Your task to perform on an android device: turn on showing notifications on the lock screen Image 0: 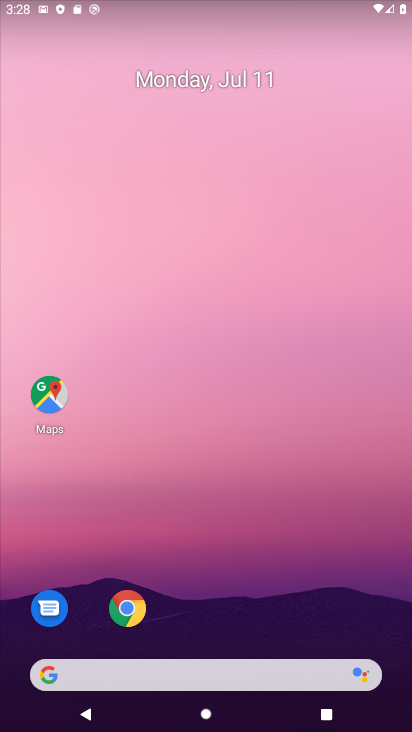
Step 0: drag from (223, 670) to (196, 55)
Your task to perform on an android device: turn on showing notifications on the lock screen Image 1: 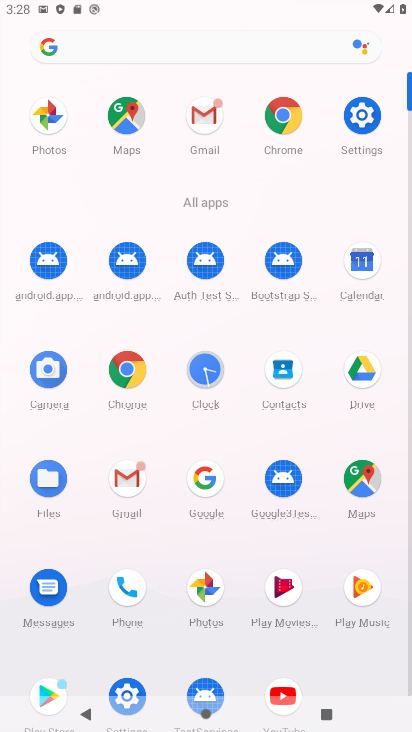
Step 1: click (123, 688)
Your task to perform on an android device: turn on showing notifications on the lock screen Image 2: 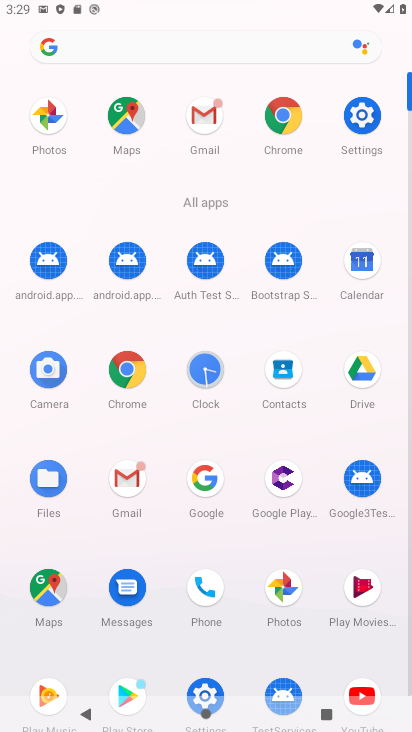
Step 2: click (206, 686)
Your task to perform on an android device: turn on showing notifications on the lock screen Image 3: 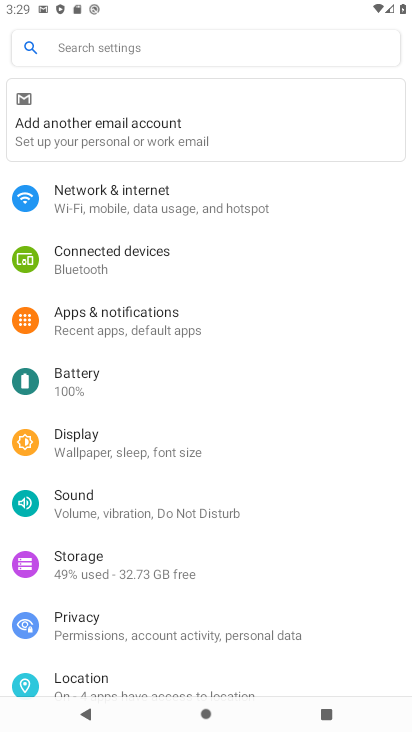
Step 3: click (133, 311)
Your task to perform on an android device: turn on showing notifications on the lock screen Image 4: 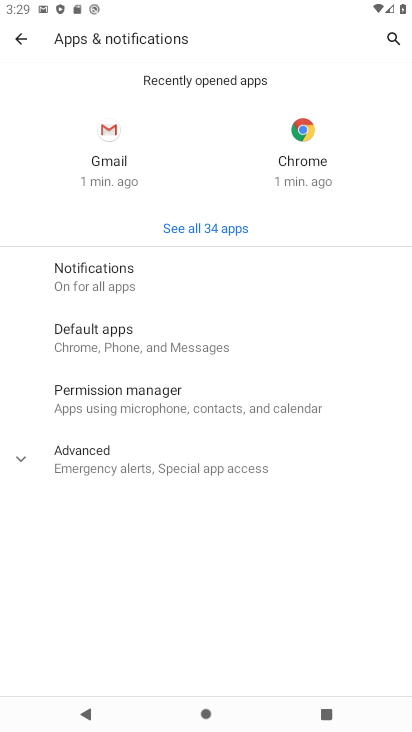
Step 4: click (111, 280)
Your task to perform on an android device: turn on showing notifications on the lock screen Image 5: 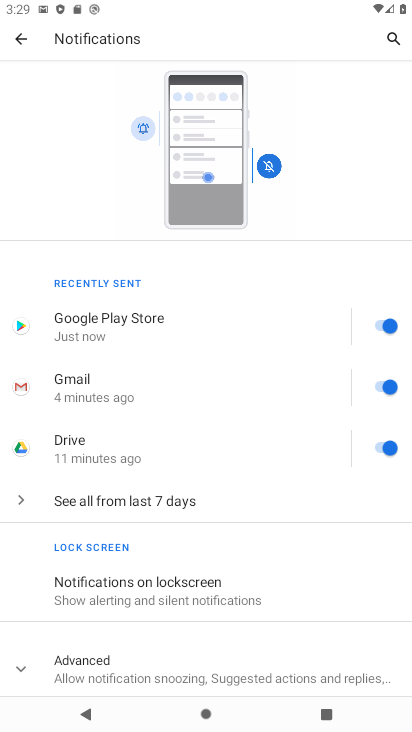
Step 5: click (154, 590)
Your task to perform on an android device: turn on showing notifications on the lock screen Image 6: 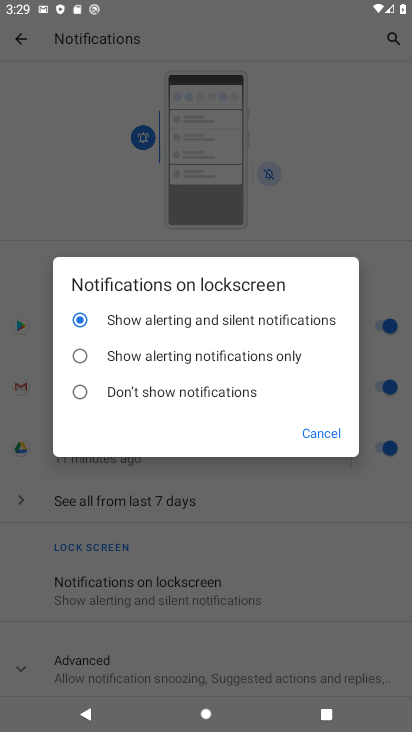
Step 6: click (229, 328)
Your task to perform on an android device: turn on showing notifications on the lock screen Image 7: 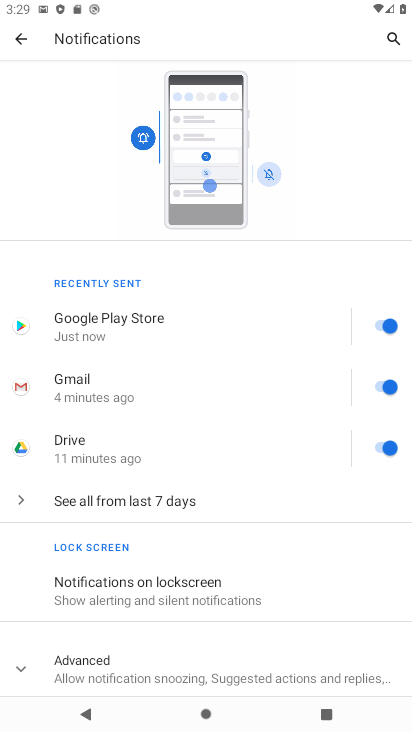
Step 7: task complete